Your task to perform on an android device: set an alarm Image 0: 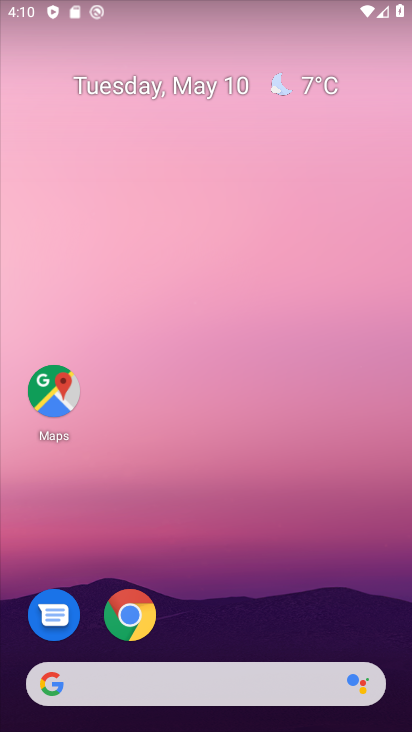
Step 0: drag from (236, 523) to (234, 21)
Your task to perform on an android device: set an alarm Image 1: 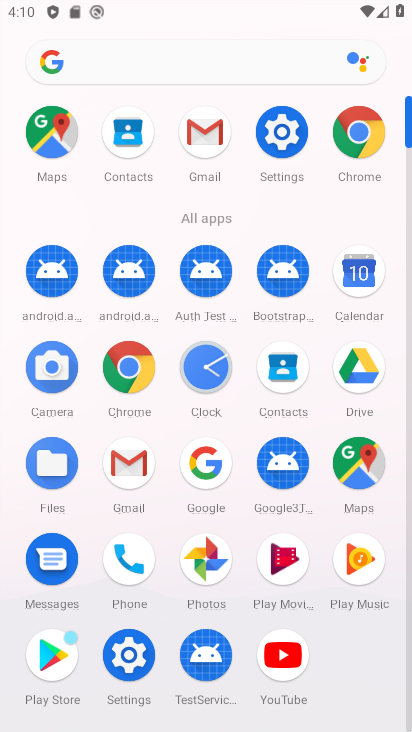
Step 1: drag from (17, 631) to (1, 203)
Your task to perform on an android device: set an alarm Image 2: 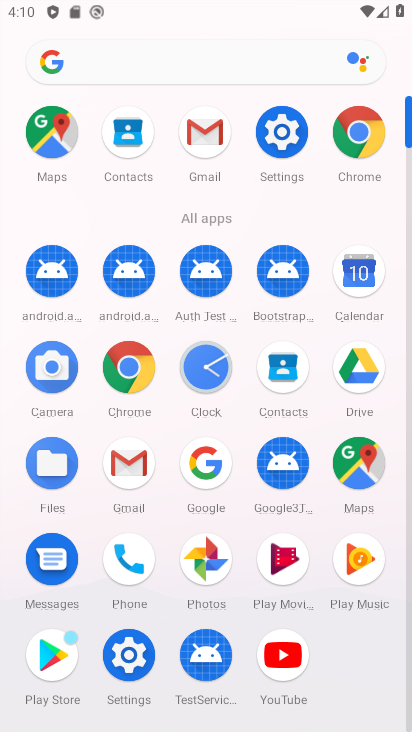
Step 2: click (206, 364)
Your task to perform on an android device: set an alarm Image 3: 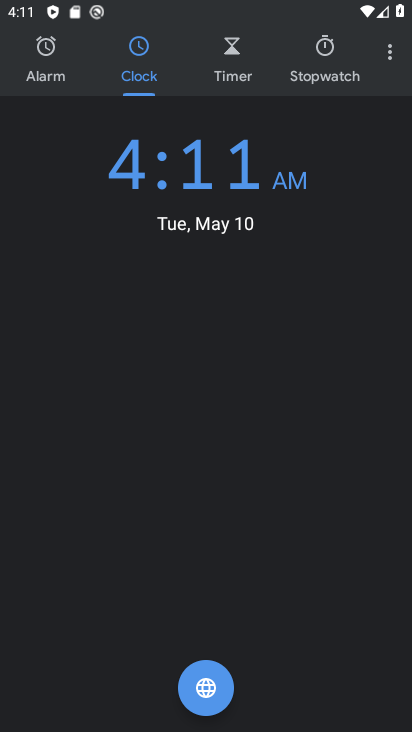
Step 3: click (34, 56)
Your task to perform on an android device: set an alarm Image 4: 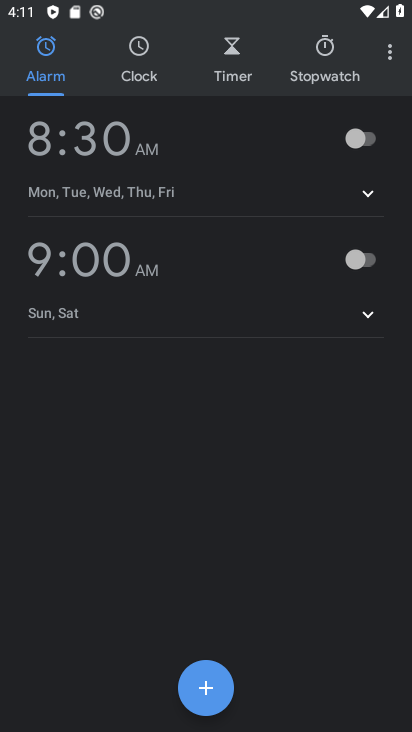
Step 4: click (199, 684)
Your task to perform on an android device: set an alarm Image 5: 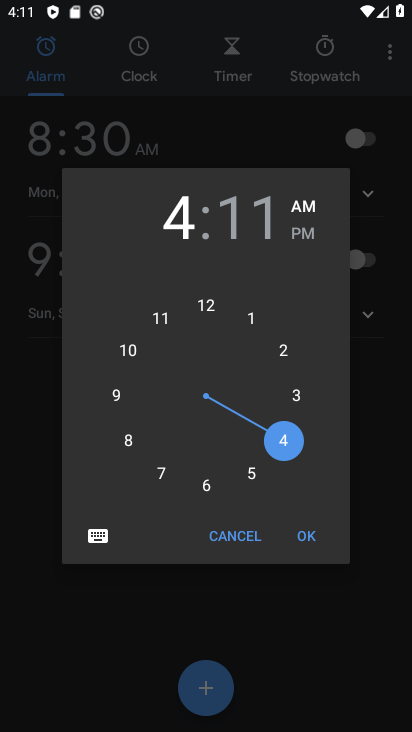
Step 5: click (212, 480)
Your task to perform on an android device: set an alarm Image 6: 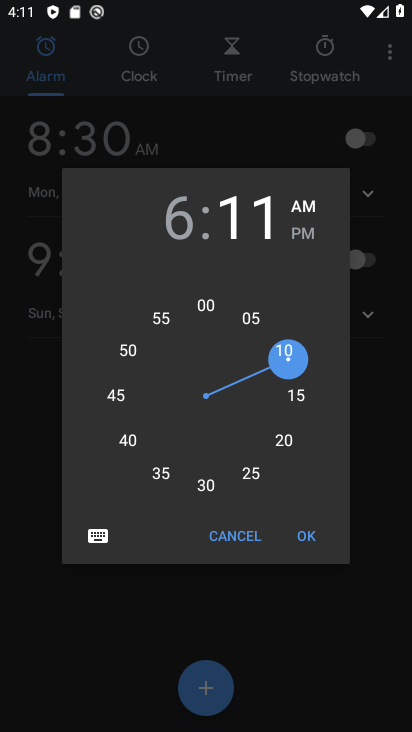
Step 6: click (306, 528)
Your task to perform on an android device: set an alarm Image 7: 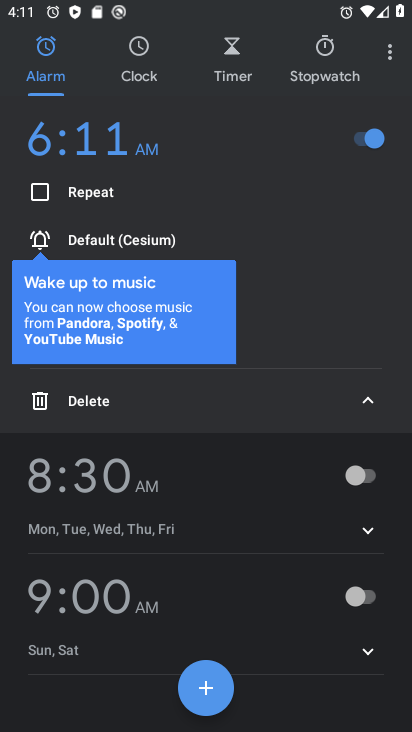
Step 7: task complete